Your task to perform on an android device: Show me recent news Image 0: 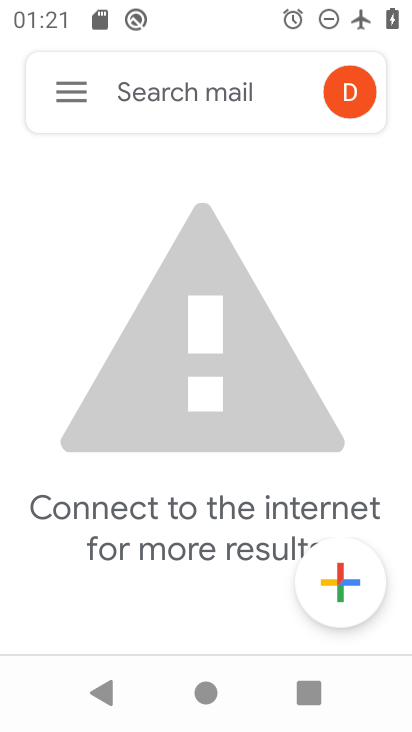
Step 0: press home button
Your task to perform on an android device: Show me recent news Image 1: 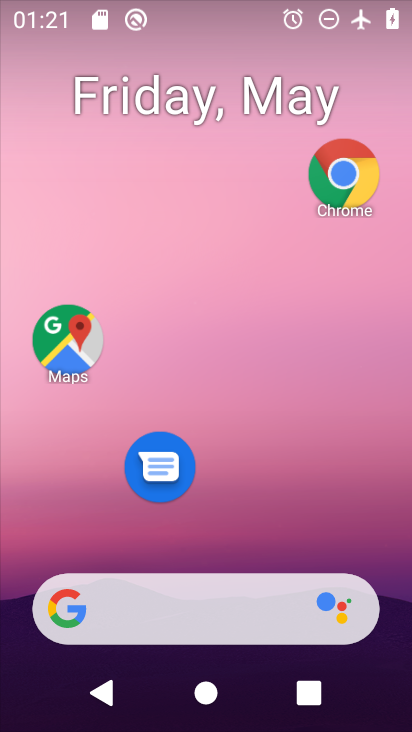
Step 1: click (340, 170)
Your task to perform on an android device: Show me recent news Image 2: 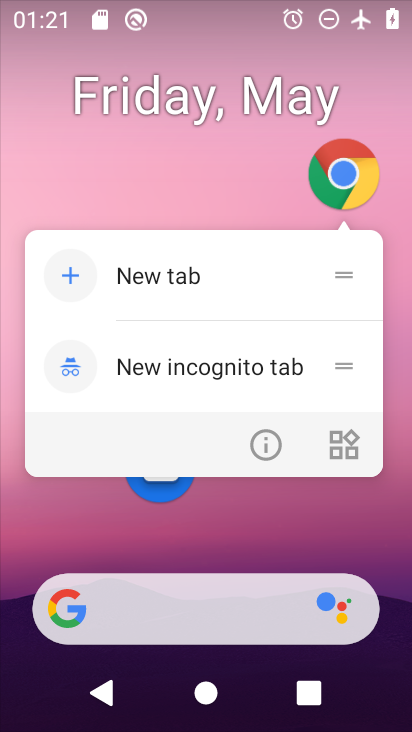
Step 2: click (348, 167)
Your task to perform on an android device: Show me recent news Image 3: 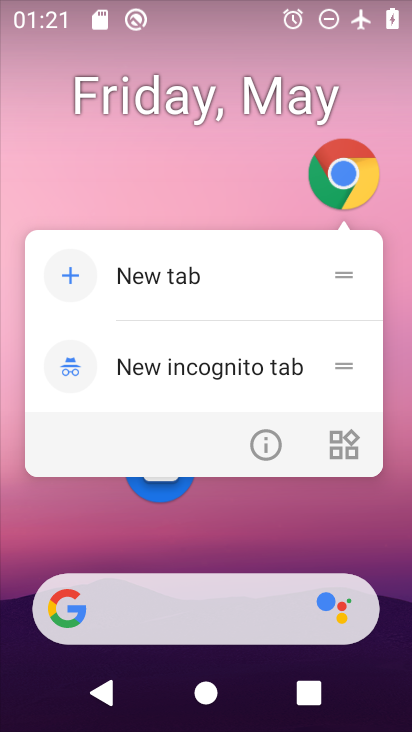
Step 3: click (346, 167)
Your task to perform on an android device: Show me recent news Image 4: 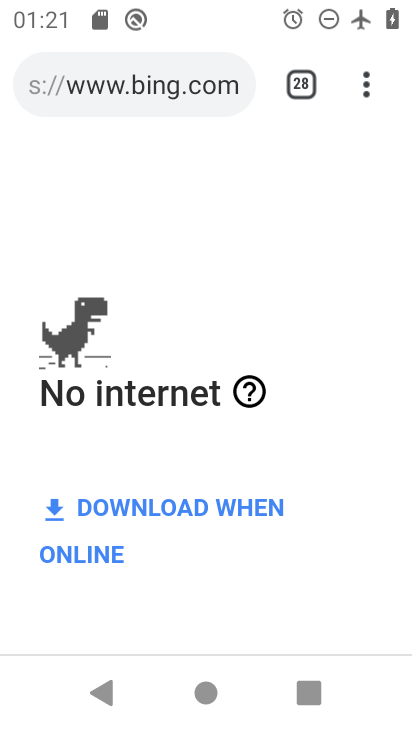
Step 4: click (199, 67)
Your task to perform on an android device: Show me recent news Image 5: 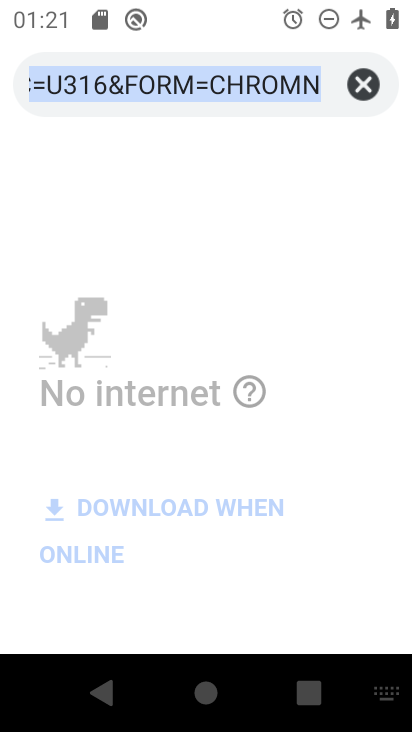
Step 5: click (344, 68)
Your task to perform on an android device: Show me recent news Image 6: 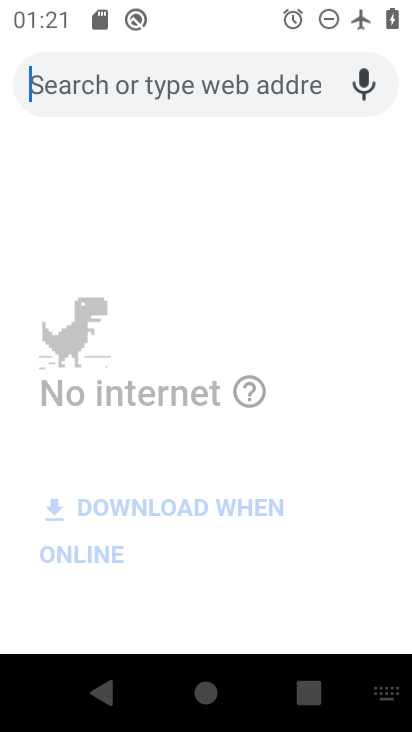
Step 6: click (243, 77)
Your task to perform on an android device: Show me recent news Image 7: 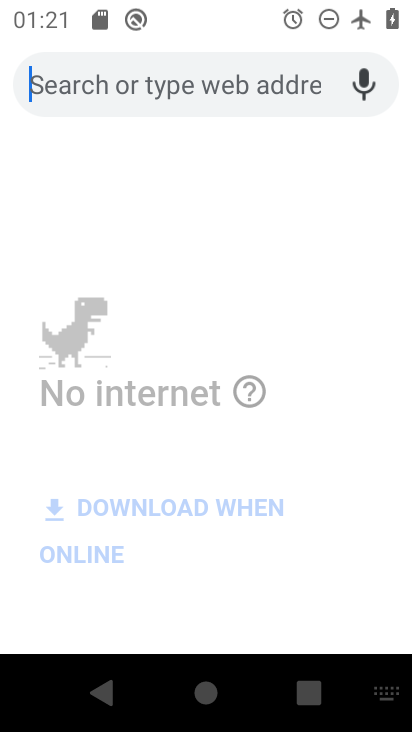
Step 7: press back button
Your task to perform on an android device: Show me recent news Image 8: 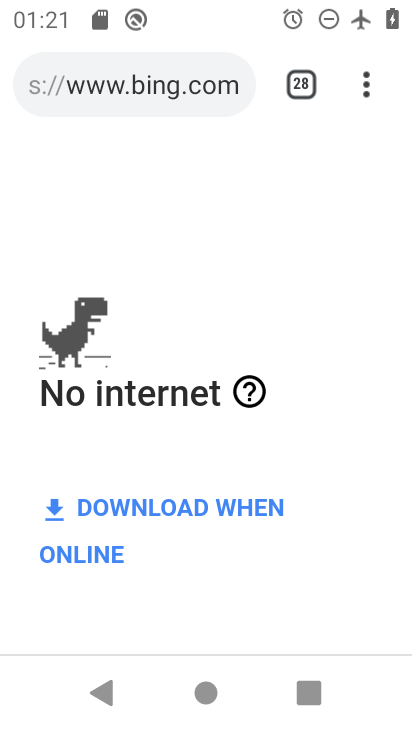
Step 8: click (370, 83)
Your task to perform on an android device: Show me recent news Image 9: 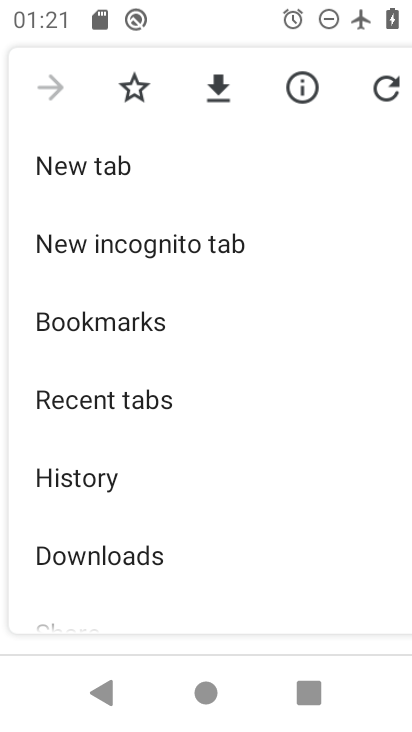
Step 9: click (84, 173)
Your task to perform on an android device: Show me recent news Image 10: 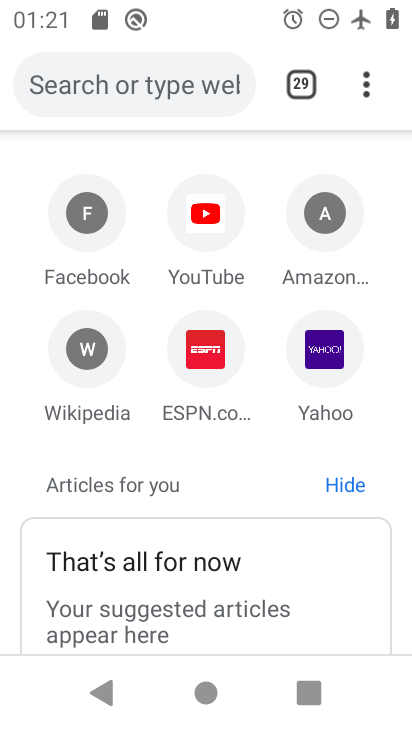
Step 10: click (188, 70)
Your task to perform on an android device: Show me recent news Image 11: 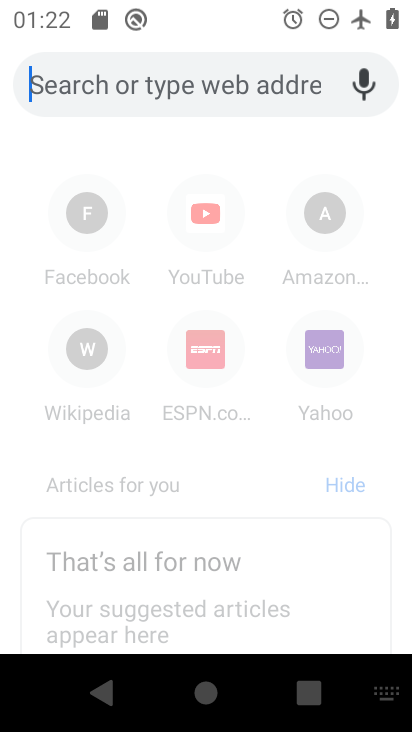
Step 11: type "Show me recent news"
Your task to perform on an android device: Show me recent news Image 12: 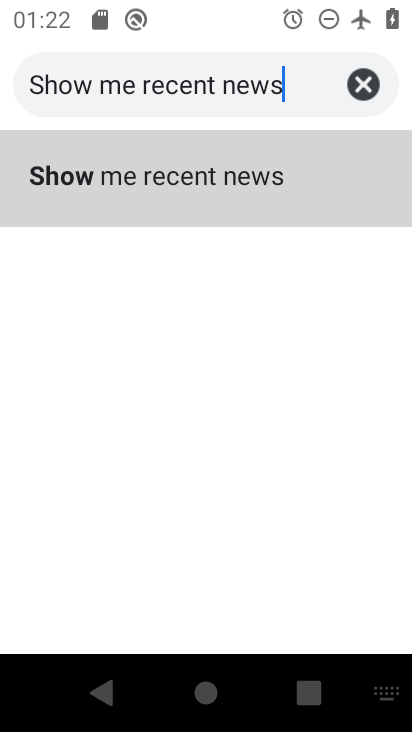
Step 12: click (183, 216)
Your task to perform on an android device: Show me recent news Image 13: 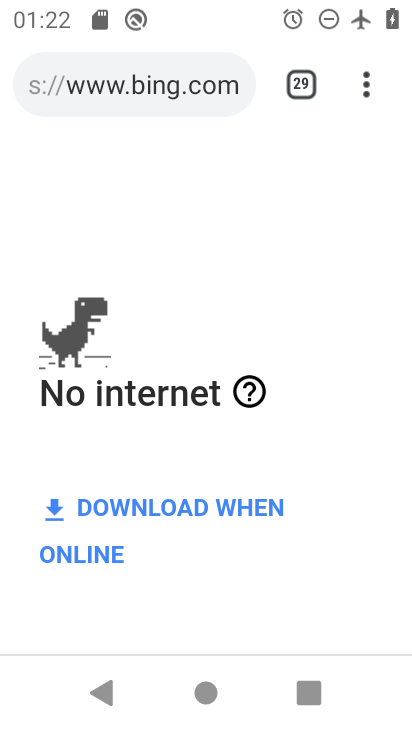
Step 13: task complete